Your task to perform on an android device: open app "Yahoo Mail" Image 0: 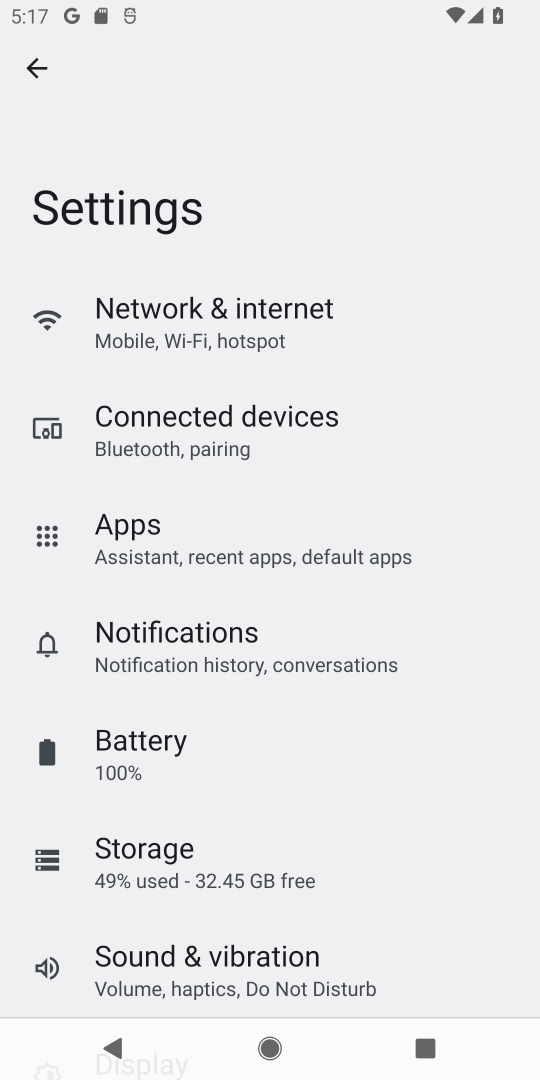
Step 0: press back button
Your task to perform on an android device: open app "Yahoo Mail" Image 1: 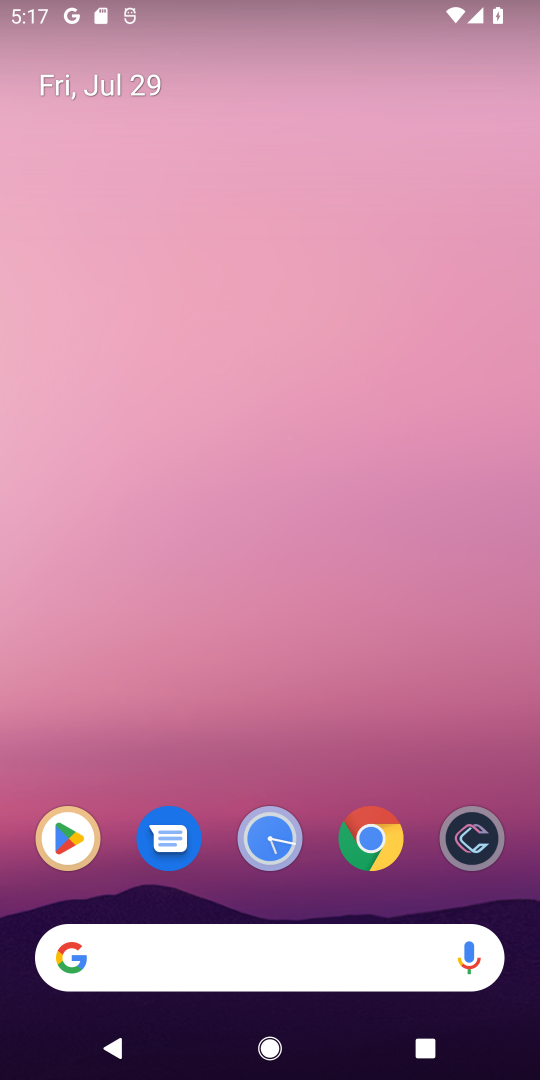
Step 1: click (68, 832)
Your task to perform on an android device: open app "Yahoo Mail" Image 2: 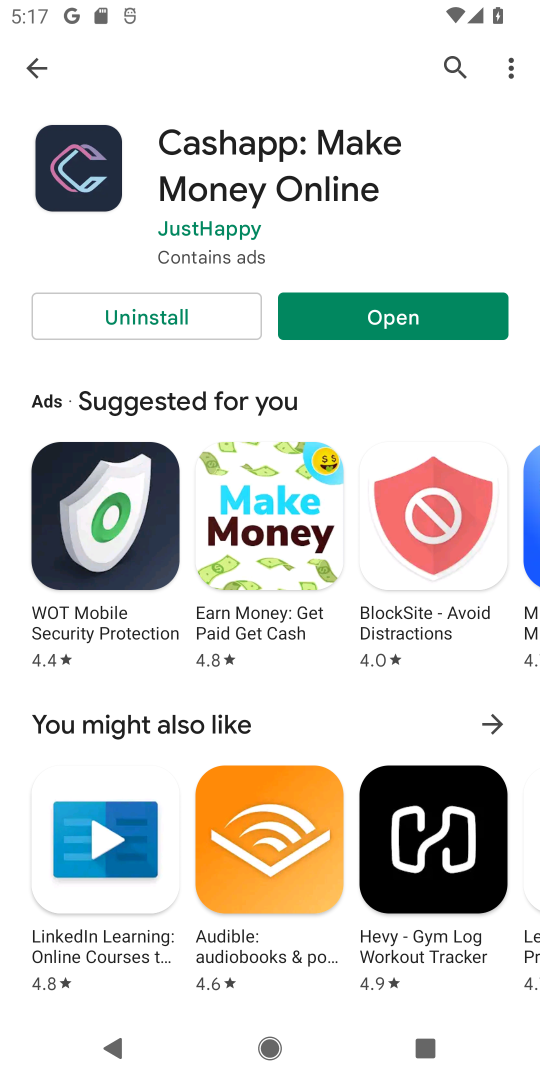
Step 2: click (471, 55)
Your task to perform on an android device: open app "Yahoo Mail" Image 3: 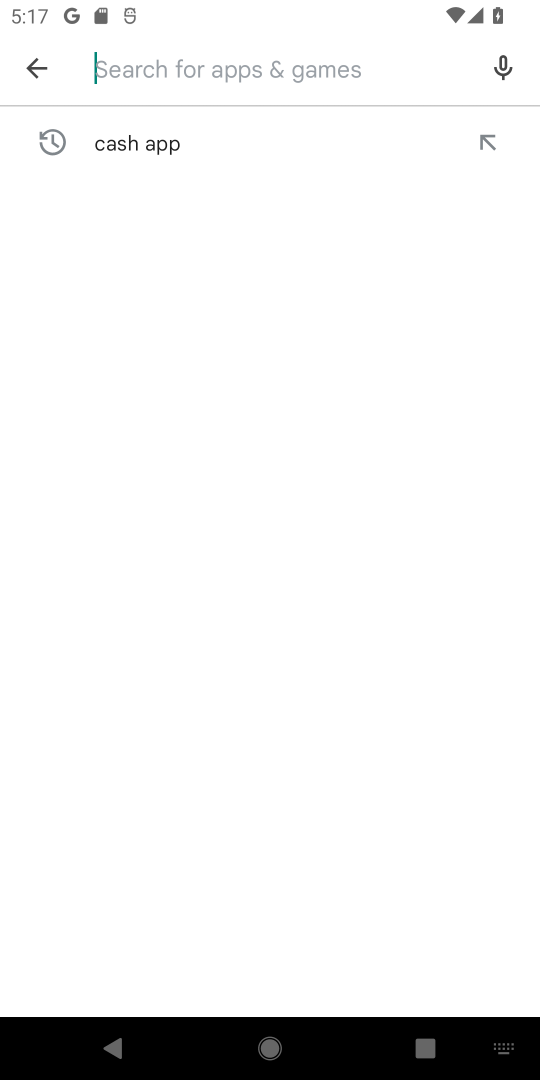
Step 3: click (314, 73)
Your task to perform on an android device: open app "Yahoo Mail" Image 4: 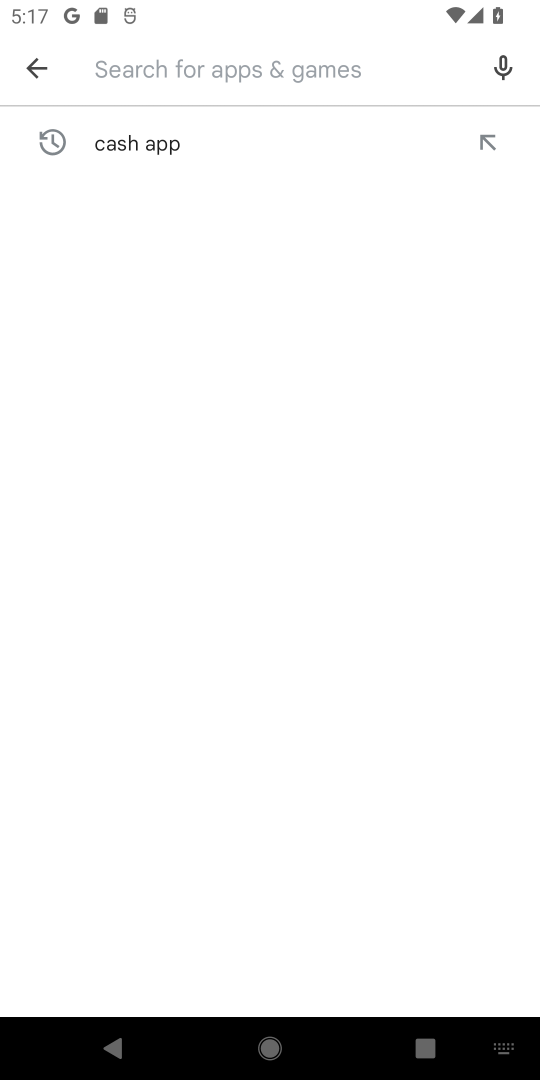
Step 4: type "yahoo mail"
Your task to perform on an android device: open app "Yahoo Mail" Image 5: 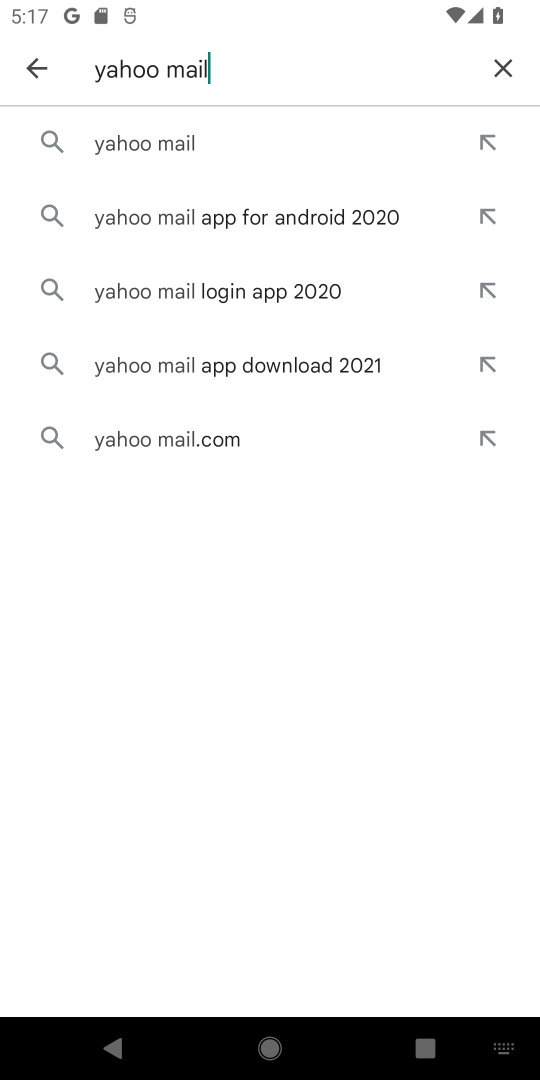
Step 5: click (185, 128)
Your task to perform on an android device: open app "Yahoo Mail" Image 6: 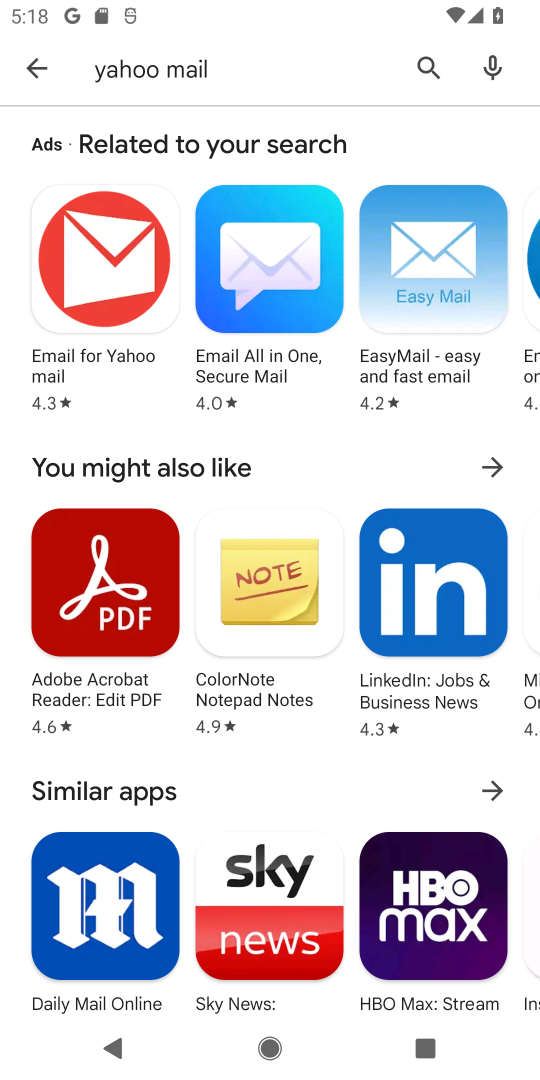
Step 6: task complete